Your task to perform on an android device: Open the map Image 0: 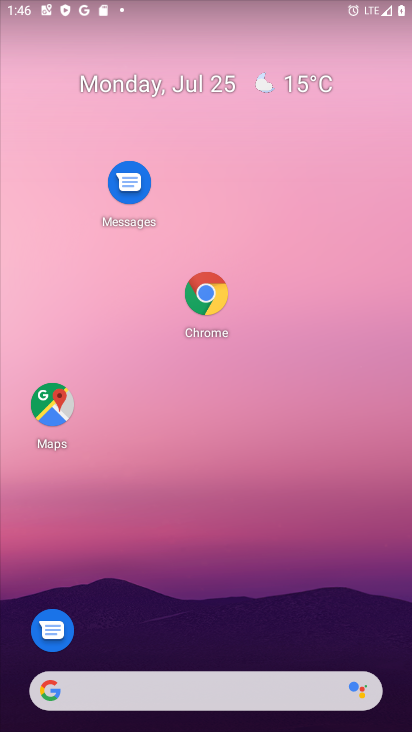
Step 0: click (43, 401)
Your task to perform on an android device: Open the map Image 1: 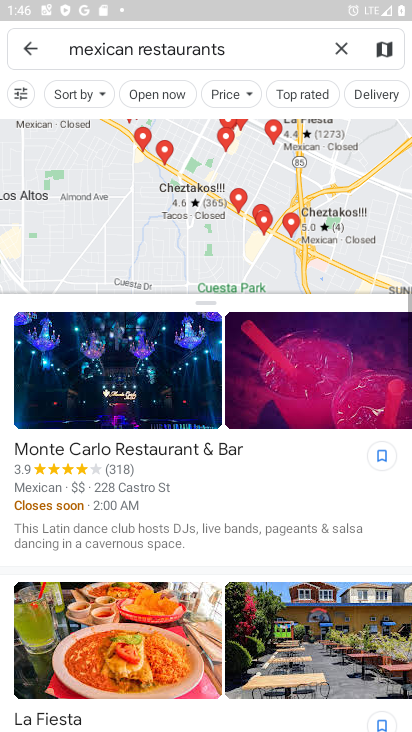
Step 1: click (22, 42)
Your task to perform on an android device: Open the map Image 2: 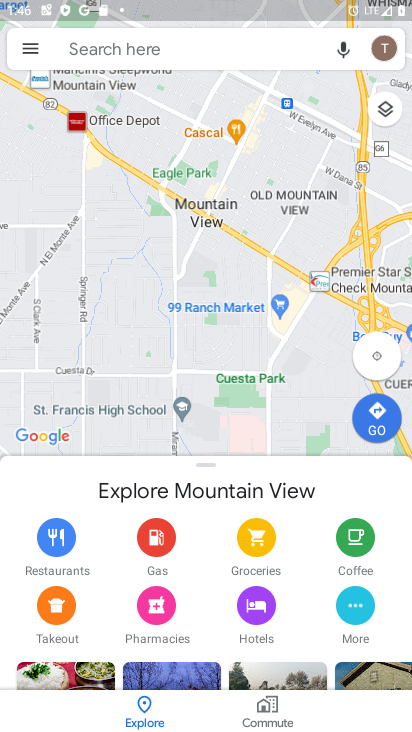
Step 2: task complete